Your task to perform on an android device: turn off sleep mode Image 0: 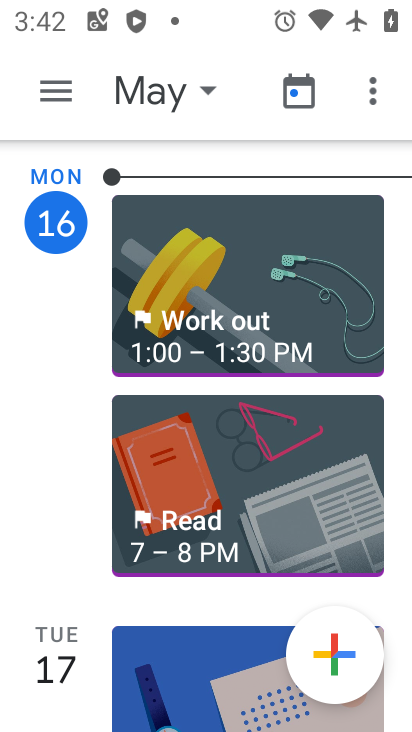
Step 0: press home button
Your task to perform on an android device: turn off sleep mode Image 1: 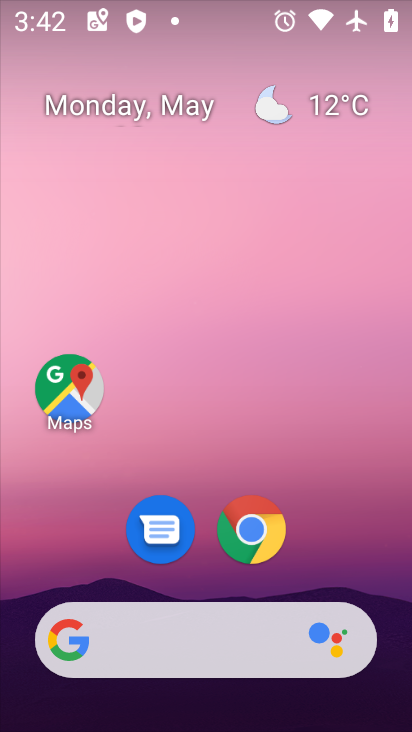
Step 1: drag from (209, 559) to (254, 47)
Your task to perform on an android device: turn off sleep mode Image 2: 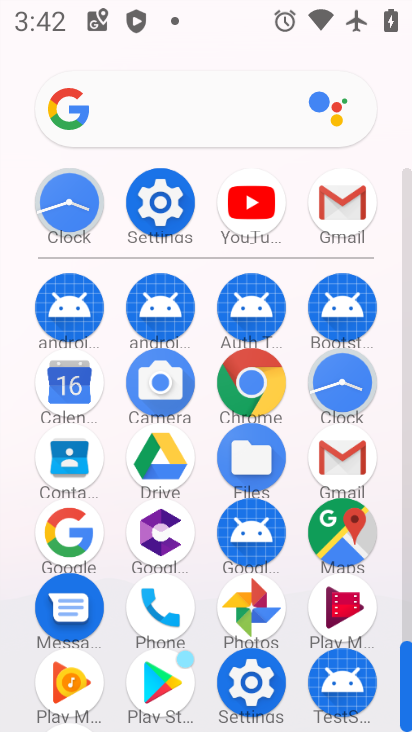
Step 2: click (138, 213)
Your task to perform on an android device: turn off sleep mode Image 3: 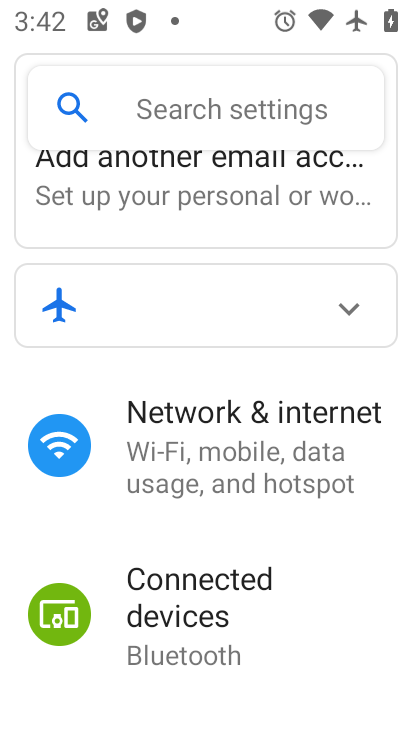
Step 3: drag from (204, 674) to (243, 294)
Your task to perform on an android device: turn off sleep mode Image 4: 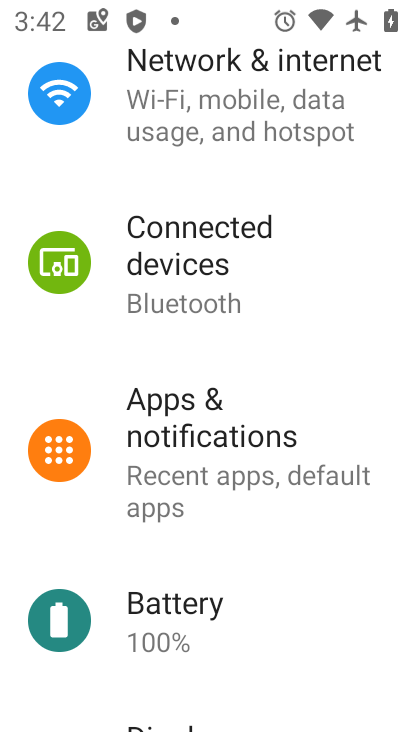
Step 4: drag from (221, 648) to (256, 383)
Your task to perform on an android device: turn off sleep mode Image 5: 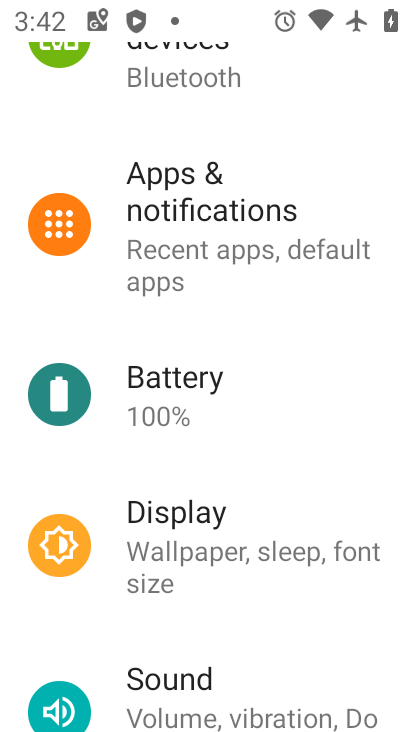
Step 5: click (236, 559)
Your task to perform on an android device: turn off sleep mode Image 6: 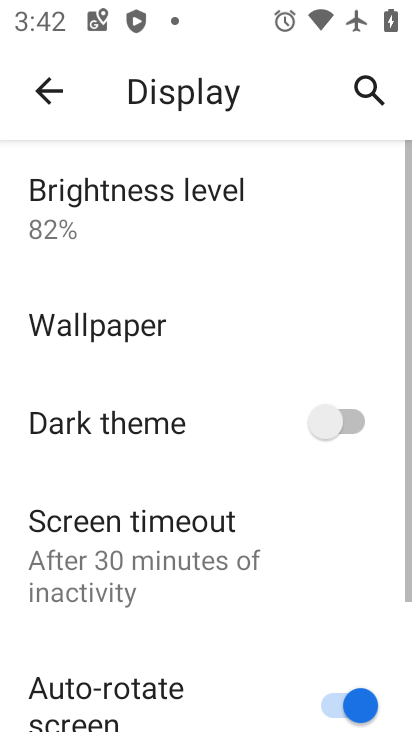
Step 6: drag from (203, 666) to (221, 446)
Your task to perform on an android device: turn off sleep mode Image 7: 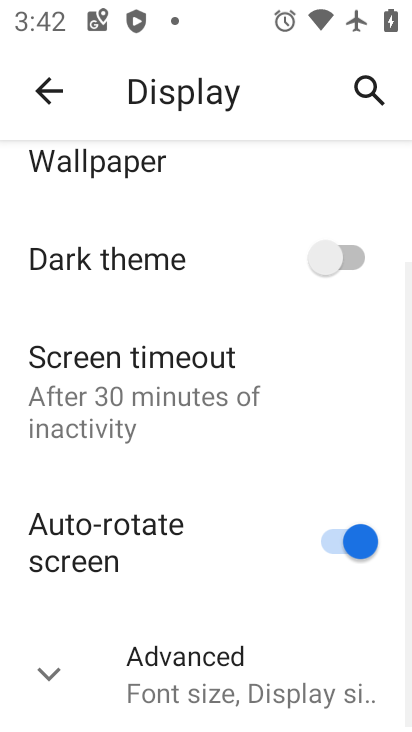
Step 7: drag from (214, 669) to (229, 403)
Your task to perform on an android device: turn off sleep mode Image 8: 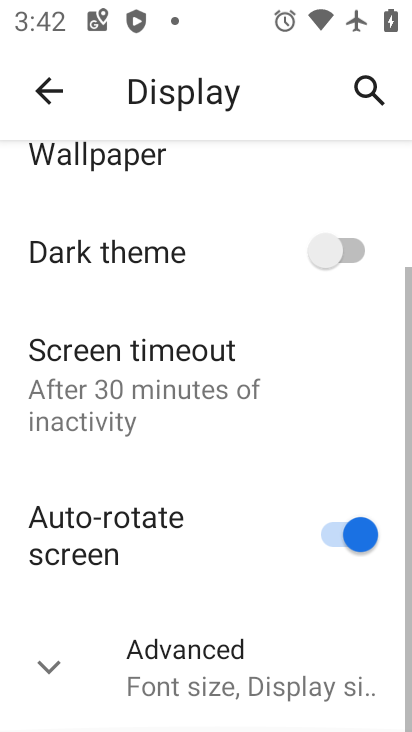
Step 8: click (166, 673)
Your task to perform on an android device: turn off sleep mode Image 9: 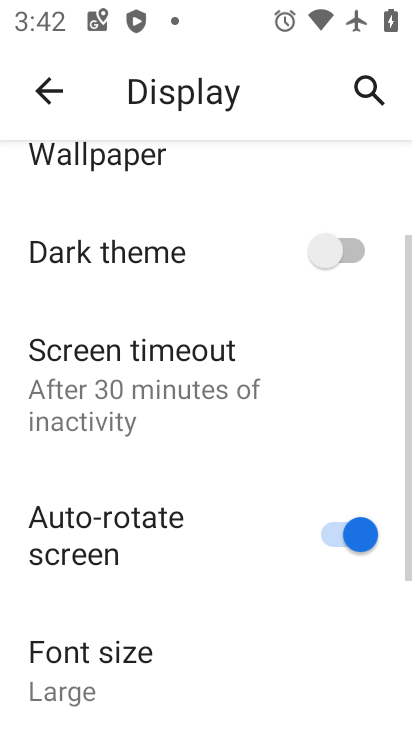
Step 9: task complete